Your task to perform on an android device: Open Google Chrome and open the bookmarks view Image 0: 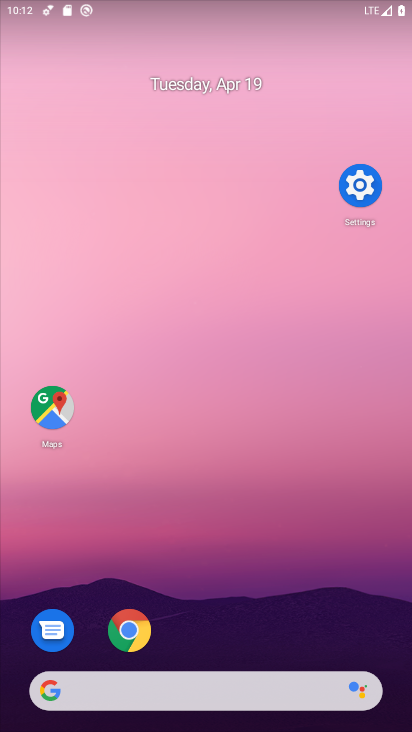
Step 0: drag from (275, 615) to (314, 243)
Your task to perform on an android device: Open Google Chrome and open the bookmarks view Image 1: 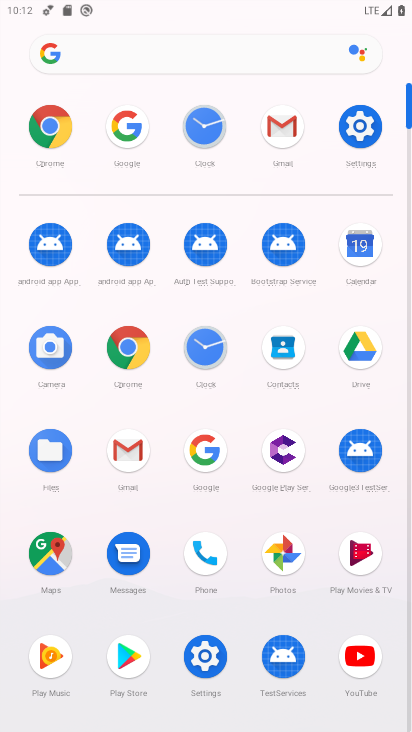
Step 1: click (118, 343)
Your task to perform on an android device: Open Google Chrome and open the bookmarks view Image 2: 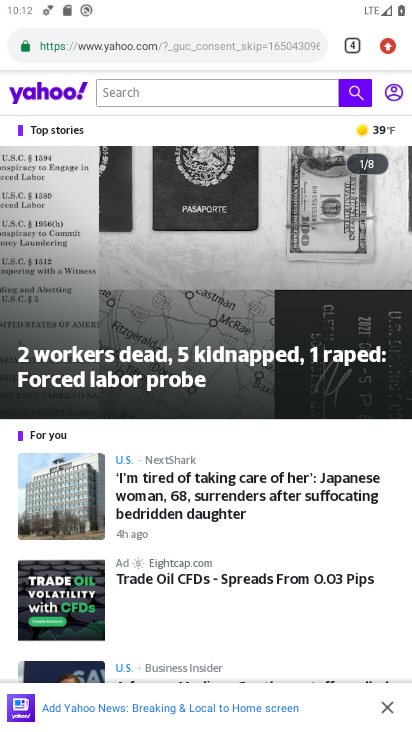
Step 2: click (386, 43)
Your task to perform on an android device: Open Google Chrome and open the bookmarks view Image 3: 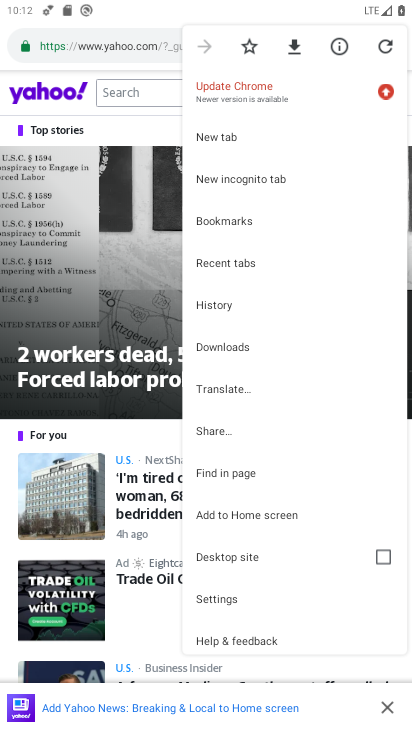
Step 3: click (248, 223)
Your task to perform on an android device: Open Google Chrome and open the bookmarks view Image 4: 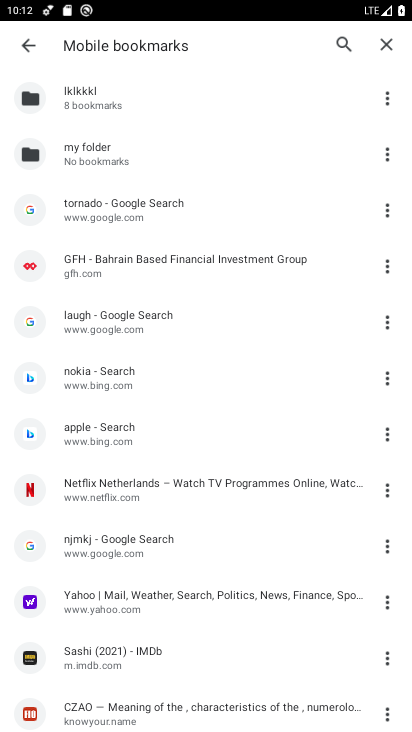
Step 4: task complete